Your task to perform on an android device: set the timer Image 0: 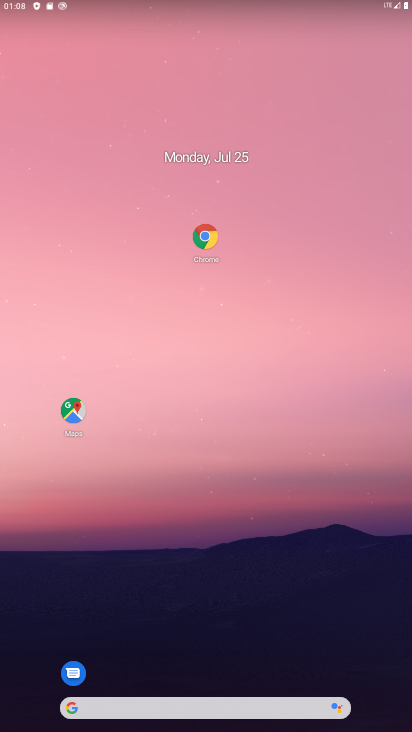
Step 0: drag from (303, 652) to (383, 107)
Your task to perform on an android device: set the timer Image 1: 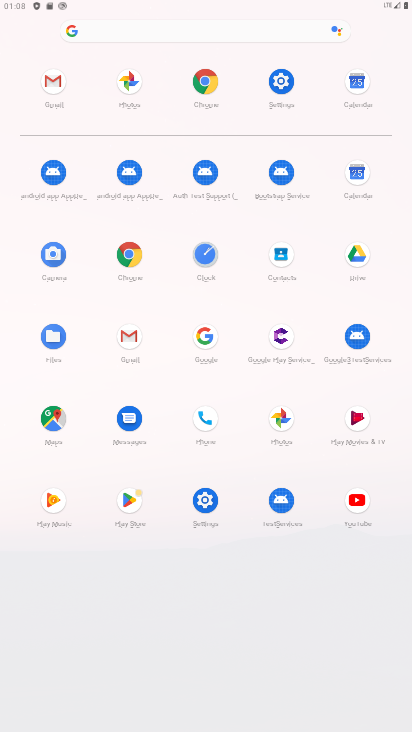
Step 1: click (210, 255)
Your task to perform on an android device: set the timer Image 2: 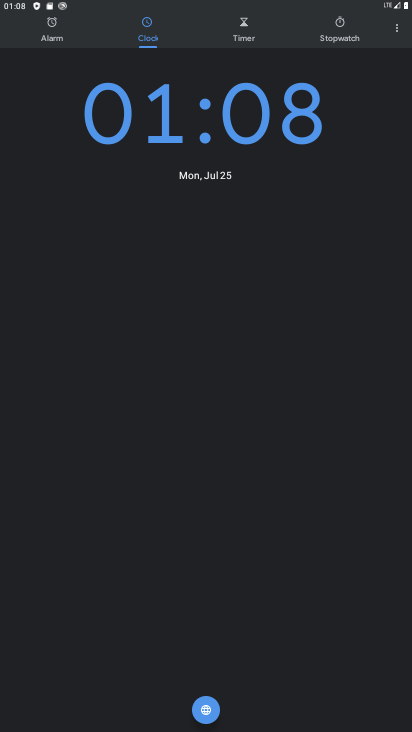
Step 2: click (248, 33)
Your task to perform on an android device: set the timer Image 3: 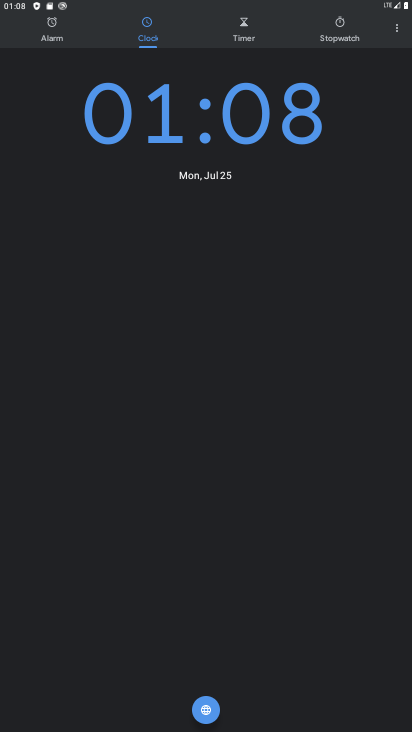
Step 3: click (248, 33)
Your task to perform on an android device: set the timer Image 4: 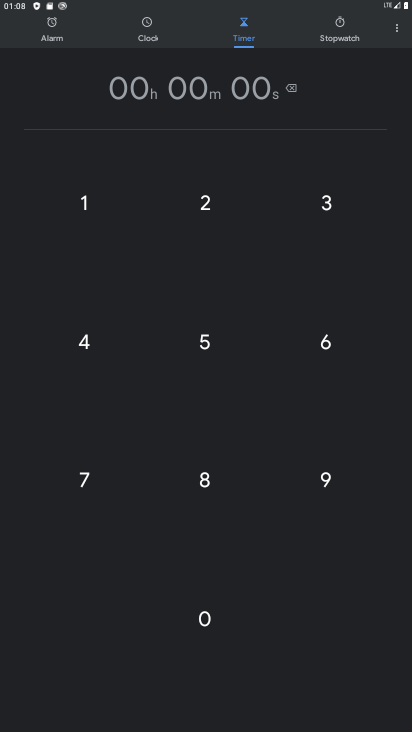
Step 4: click (328, 475)
Your task to perform on an android device: set the timer Image 5: 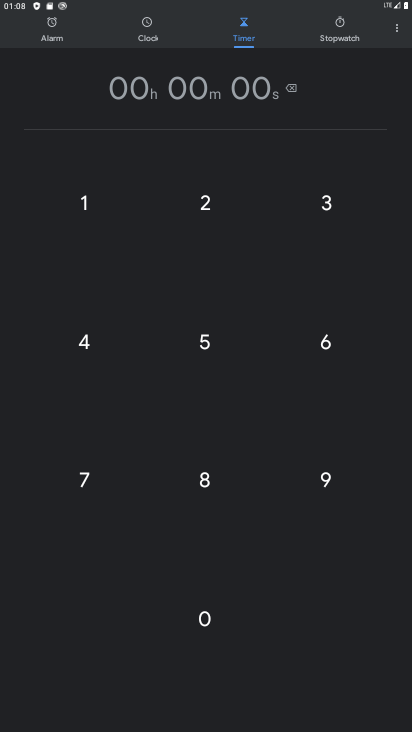
Step 5: click (328, 475)
Your task to perform on an android device: set the timer Image 6: 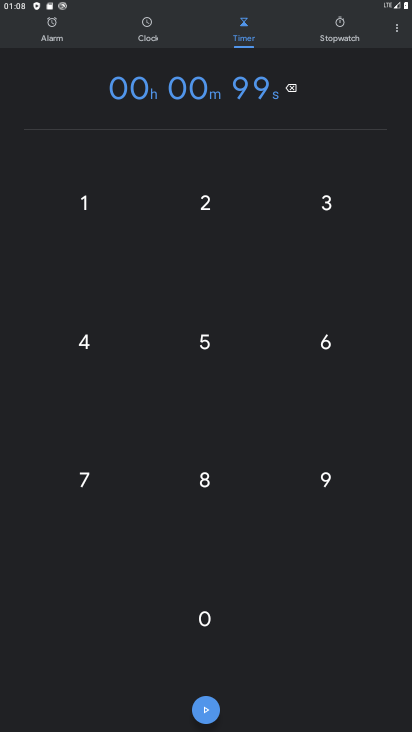
Step 6: click (206, 339)
Your task to perform on an android device: set the timer Image 7: 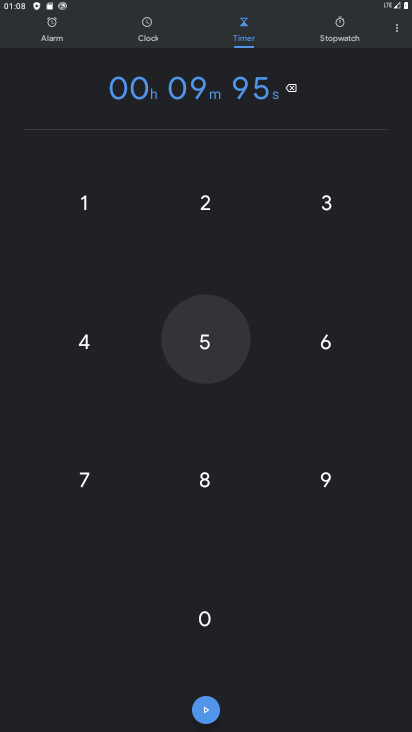
Step 7: click (197, 619)
Your task to perform on an android device: set the timer Image 8: 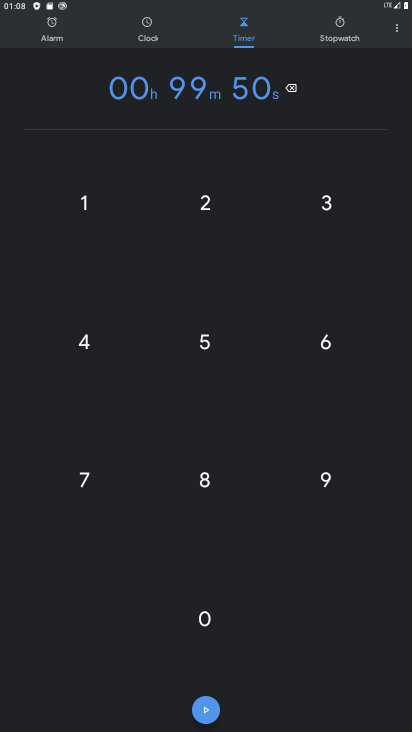
Step 8: click (216, 347)
Your task to perform on an android device: set the timer Image 9: 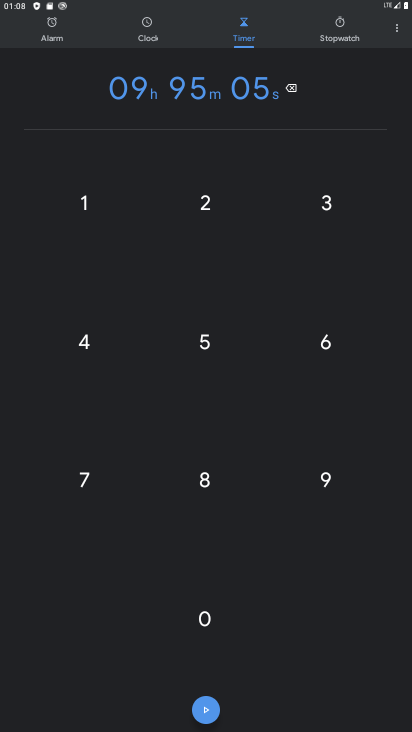
Step 9: click (200, 588)
Your task to perform on an android device: set the timer Image 10: 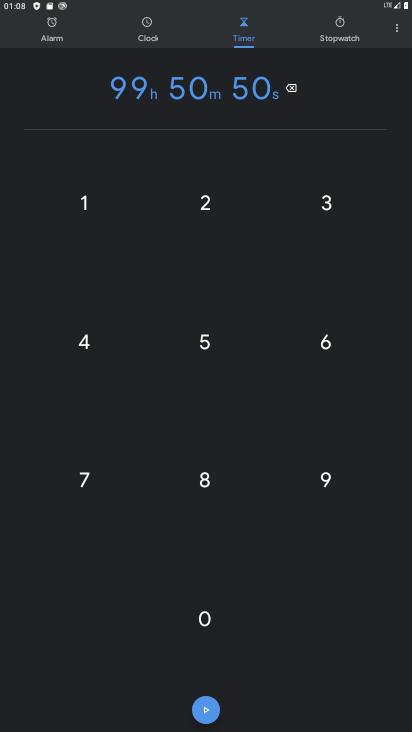
Step 10: click (204, 716)
Your task to perform on an android device: set the timer Image 11: 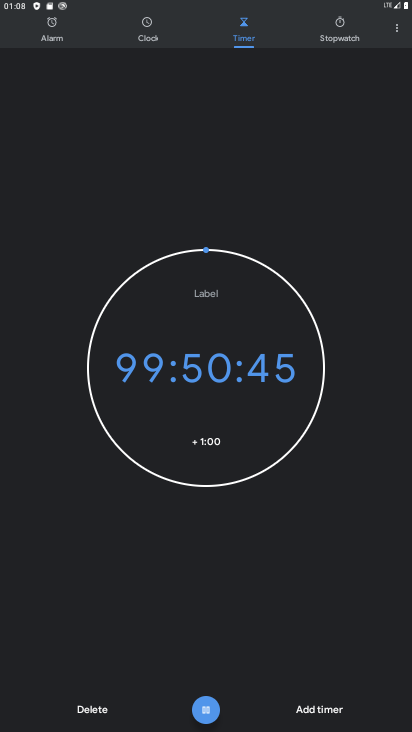
Step 11: task complete